Your task to perform on an android device: toggle notifications settings in the gmail app Image 0: 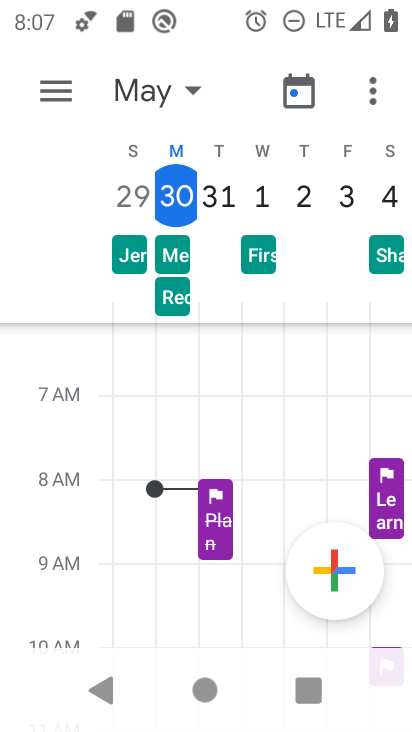
Step 0: press home button
Your task to perform on an android device: toggle notifications settings in the gmail app Image 1: 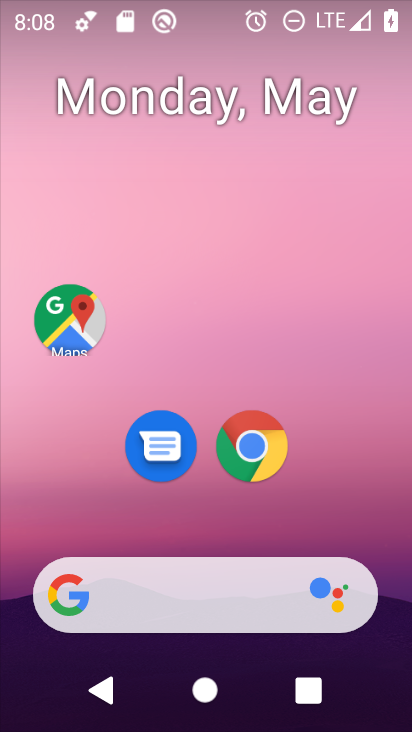
Step 1: drag from (324, 513) to (175, 120)
Your task to perform on an android device: toggle notifications settings in the gmail app Image 2: 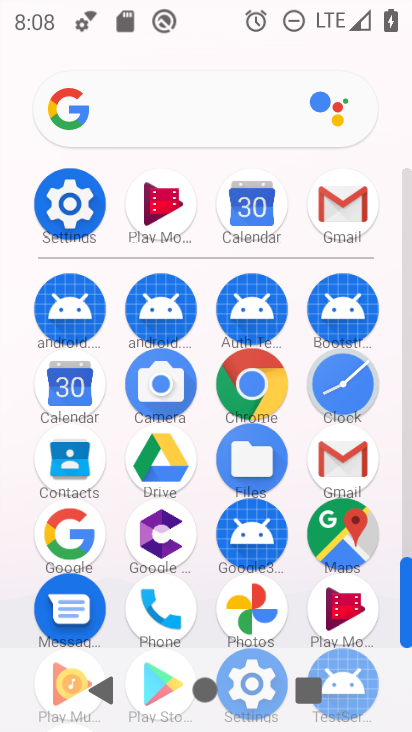
Step 2: click (339, 207)
Your task to perform on an android device: toggle notifications settings in the gmail app Image 3: 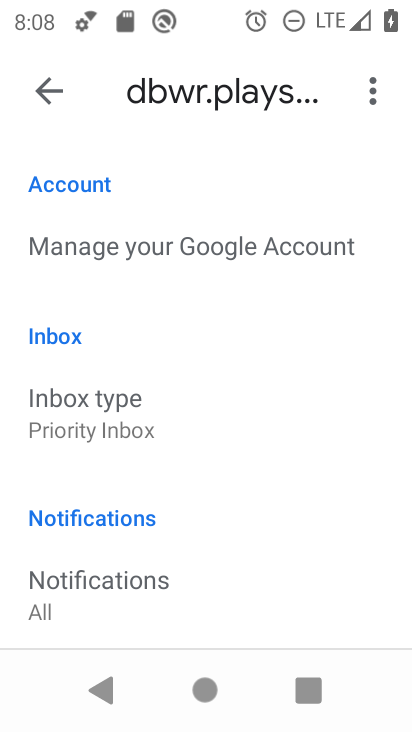
Step 3: click (44, 88)
Your task to perform on an android device: toggle notifications settings in the gmail app Image 4: 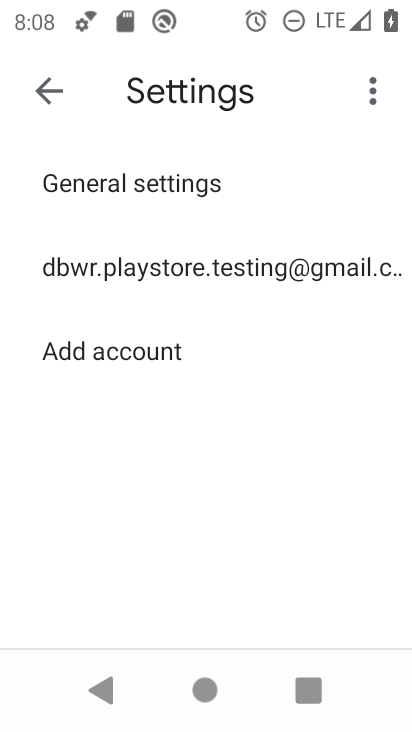
Step 4: click (119, 188)
Your task to perform on an android device: toggle notifications settings in the gmail app Image 5: 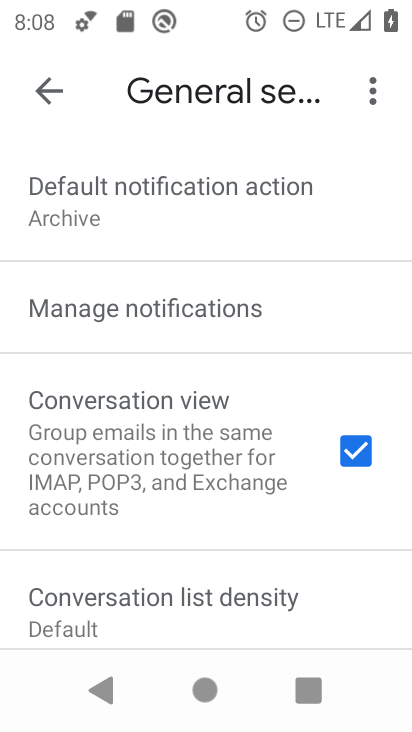
Step 5: click (145, 299)
Your task to perform on an android device: toggle notifications settings in the gmail app Image 6: 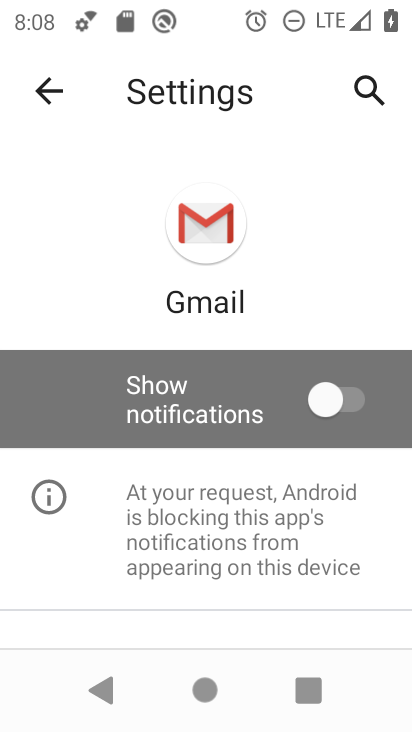
Step 6: task complete